Your task to perform on an android device: toggle data saver in the chrome app Image 0: 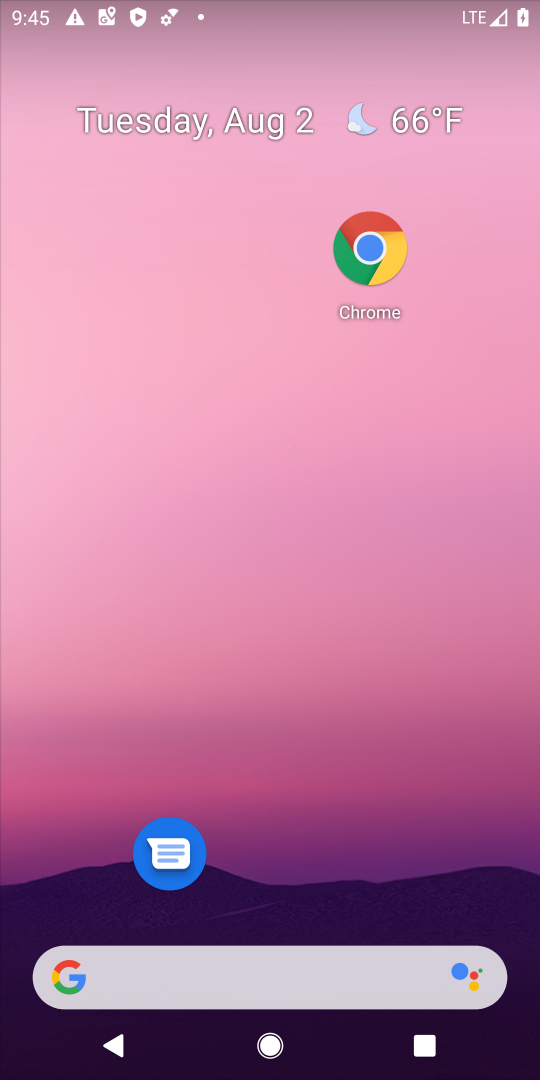
Step 0: drag from (289, 858) to (517, 445)
Your task to perform on an android device: toggle data saver in the chrome app Image 1: 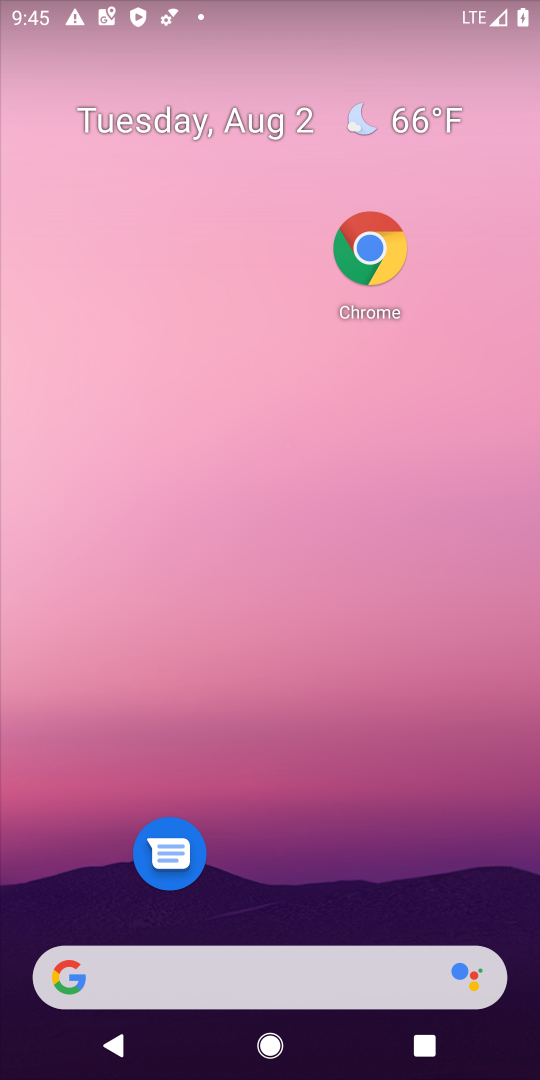
Step 1: click (175, 554)
Your task to perform on an android device: toggle data saver in the chrome app Image 2: 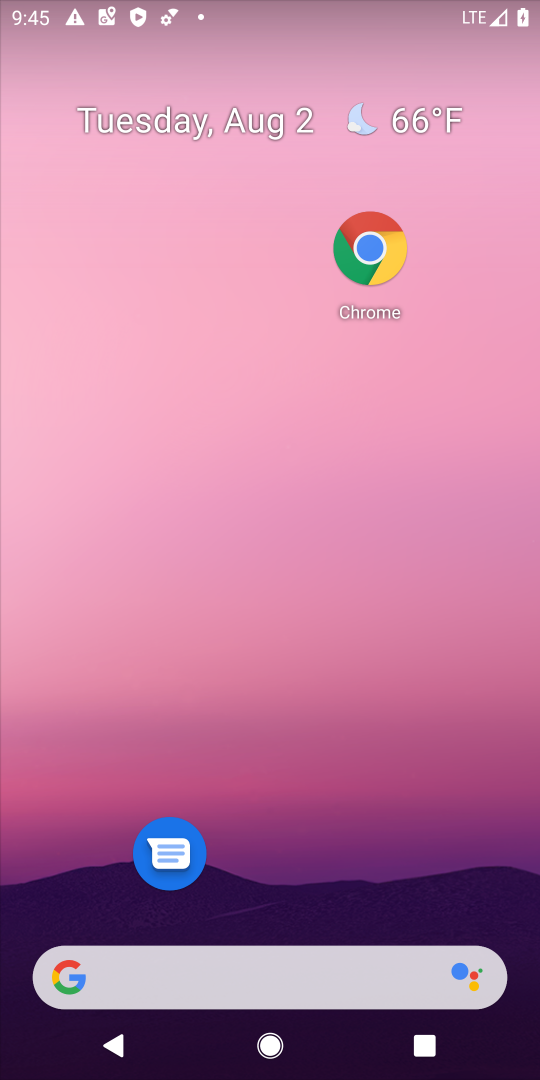
Step 2: drag from (307, 859) to (347, 46)
Your task to perform on an android device: toggle data saver in the chrome app Image 3: 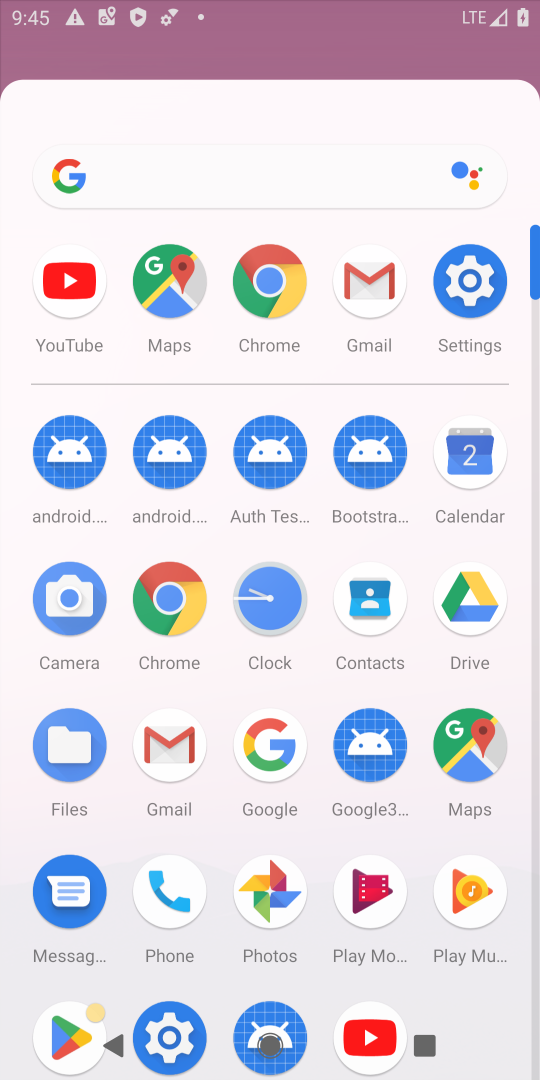
Step 3: click (194, 555)
Your task to perform on an android device: toggle data saver in the chrome app Image 4: 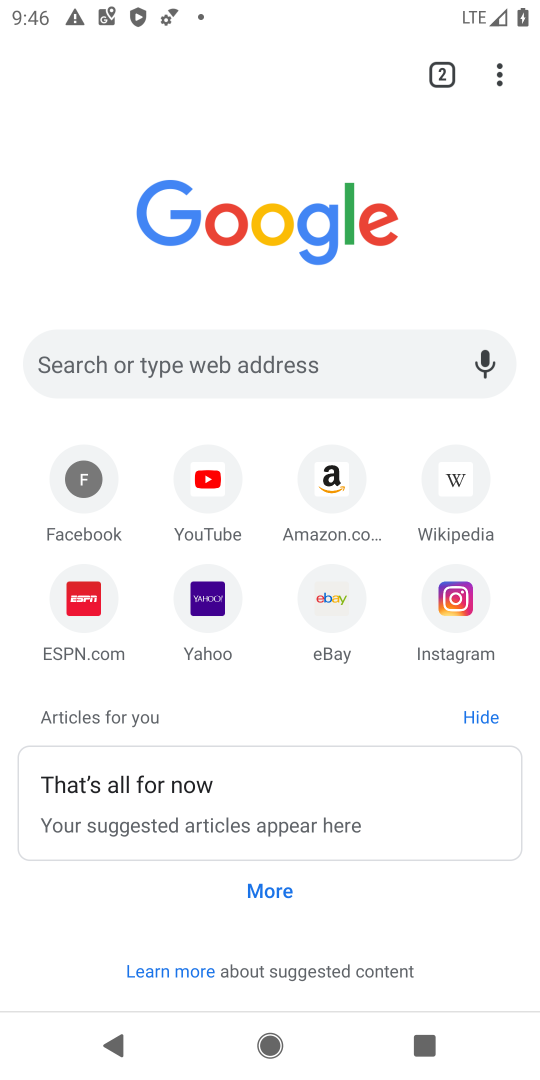
Step 4: click (511, 77)
Your task to perform on an android device: toggle data saver in the chrome app Image 5: 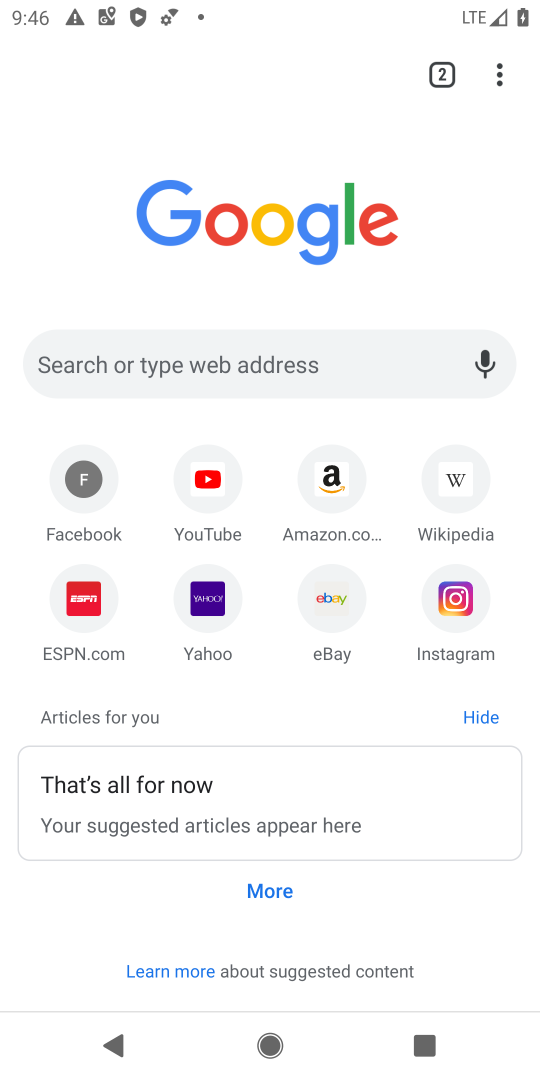
Step 5: click (509, 78)
Your task to perform on an android device: toggle data saver in the chrome app Image 6: 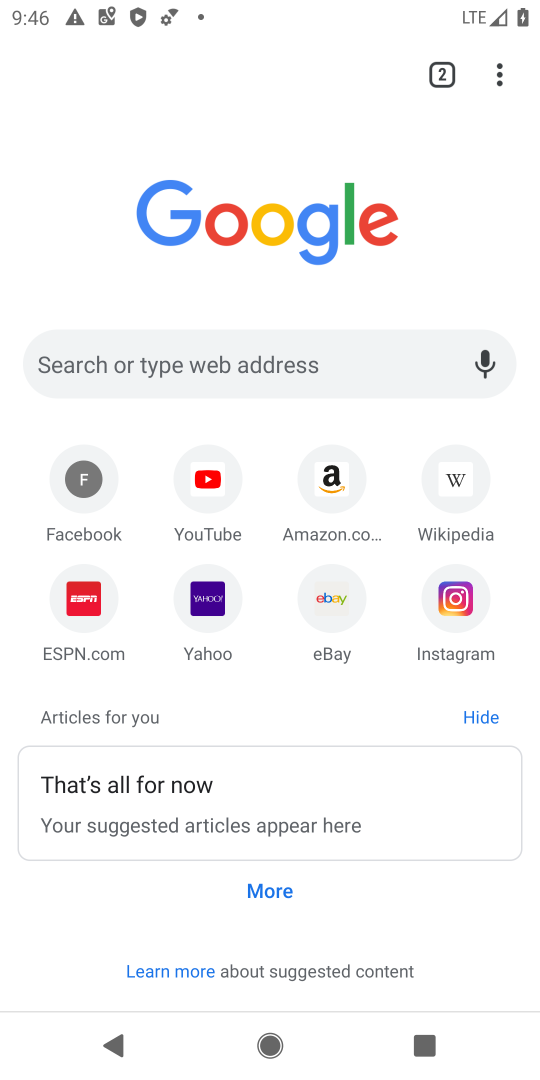
Step 6: drag from (509, 78) to (245, 630)
Your task to perform on an android device: toggle data saver in the chrome app Image 7: 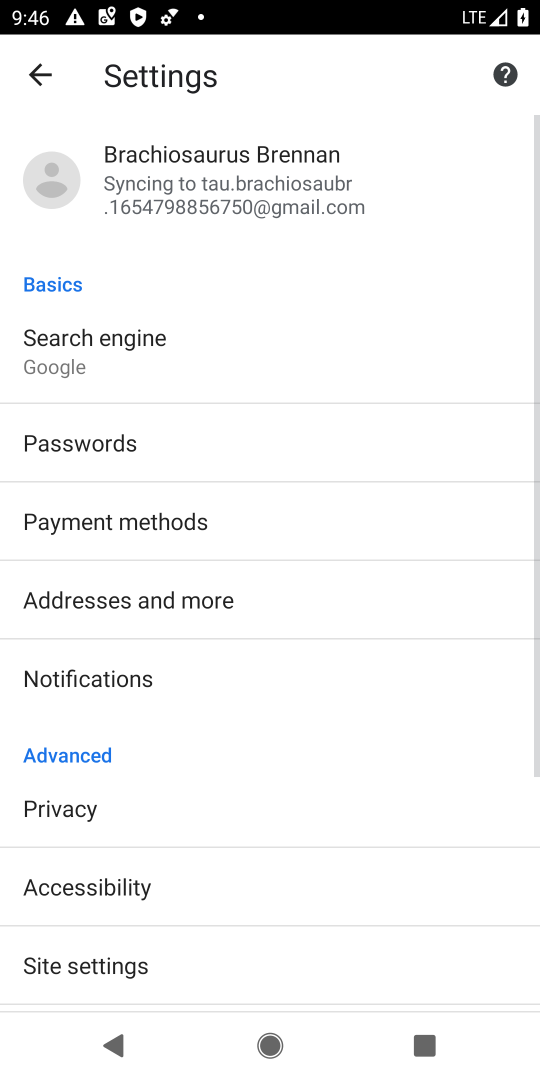
Step 7: drag from (363, 912) to (303, 0)
Your task to perform on an android device: toggle data saver in the chrome app Image 8: 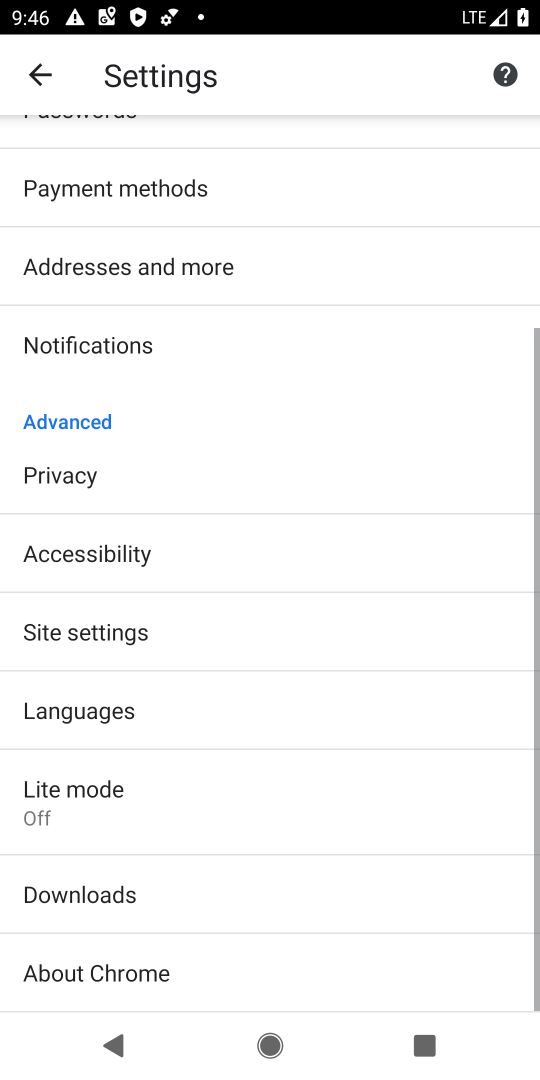
Step 8: click (98, 793)
Your task to perform on an android device: toggle data saver in the chrome app Image 9: 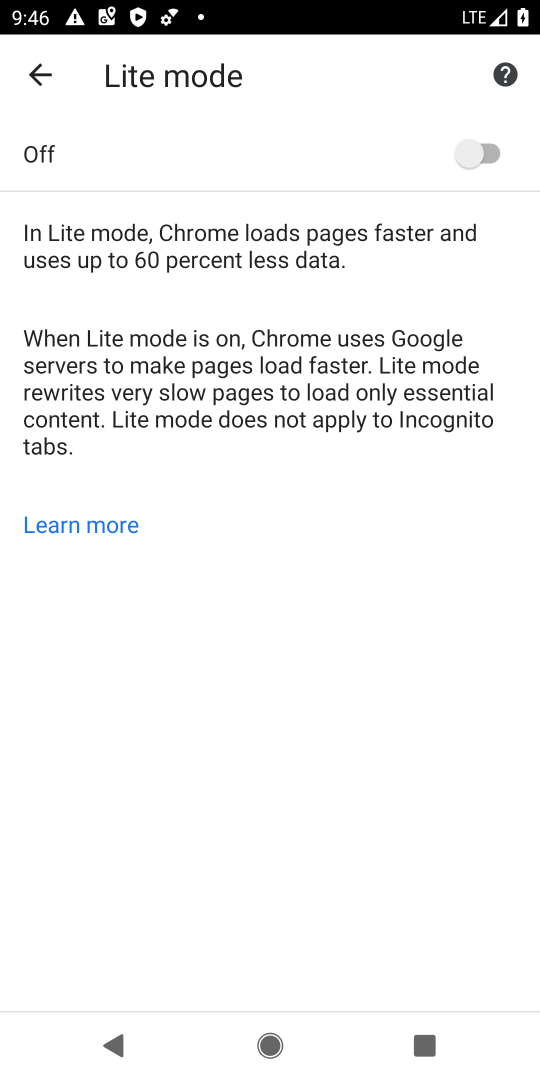
Step 9: click (458, 142)
Your task to perform on an android device: toggle data saver in the chrome app Image 10: 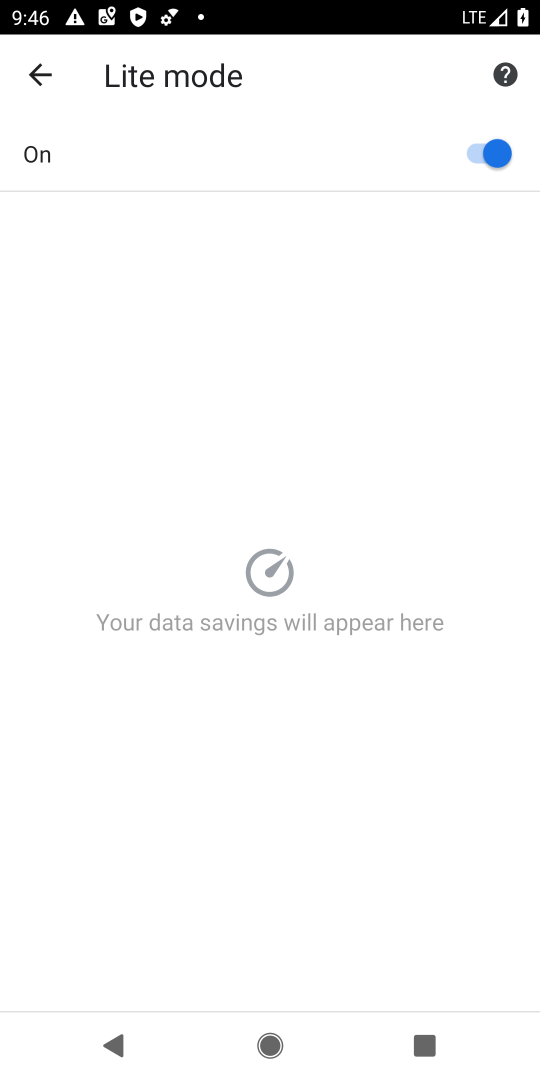
Step 10: task complete